Your task to perform on an android device: clear history in the chrome app Image 0: 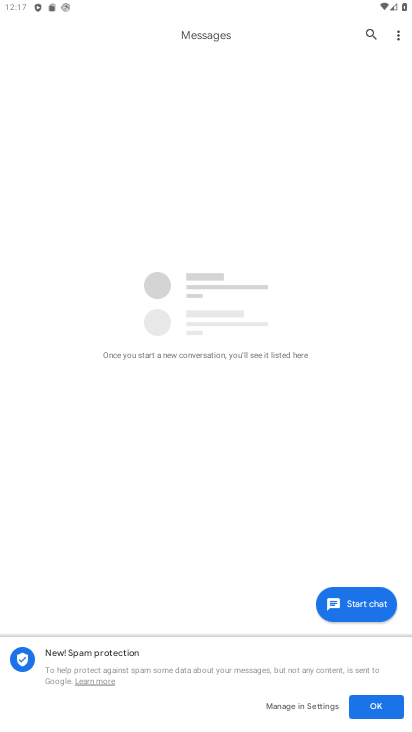
Step 0: press home button
Your task to perform on an android device: clear history in the chrome app Image 1: 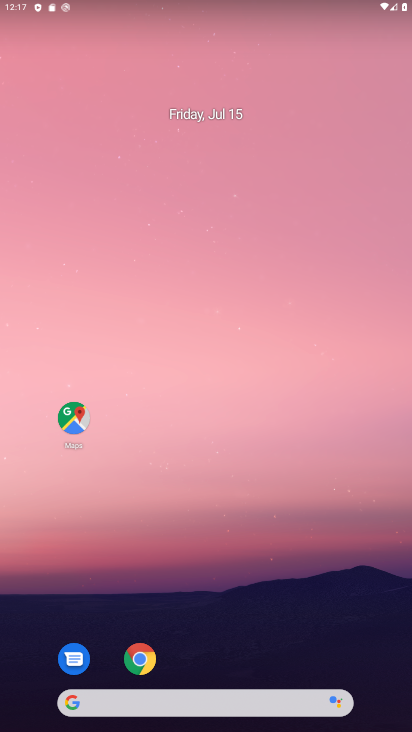
Step 1: click (139, 657)
Your task to perform on an android device: clear history in the chrome app Image 2: 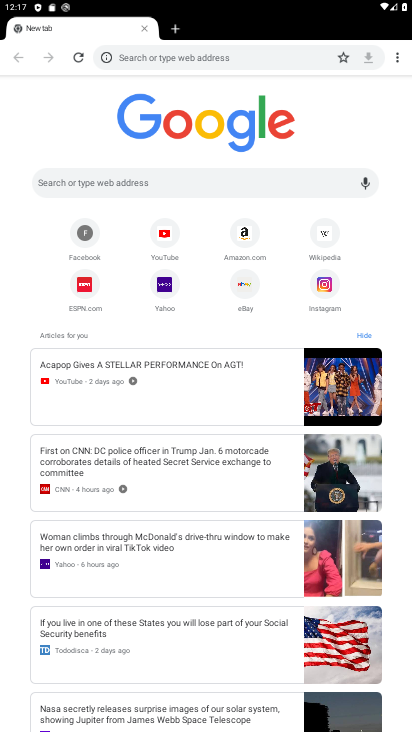
Step 2: click (393, 54)
Your task to perform on an android device: clear history in the chrome app Image 3: 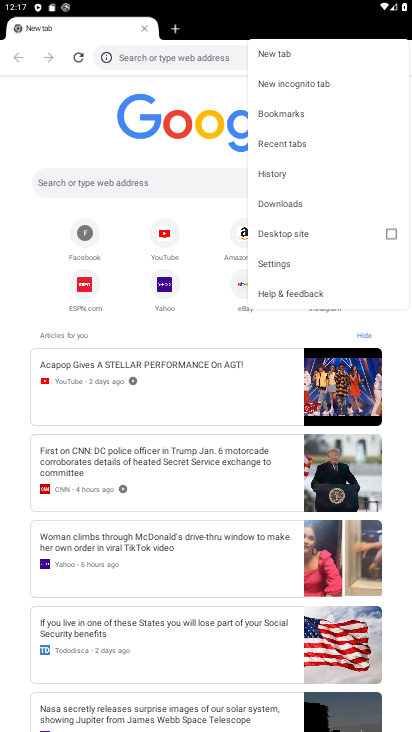
Step 3: click (298, 265)
Your task to perform on an android device: clear history in the chrome app Image 4: 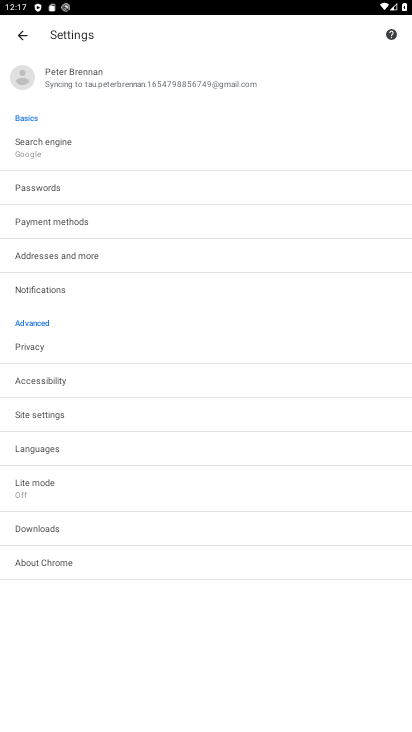
Step 4: click (69, 419)
Your task to perform on an android device: clear history in the chrome app Image 5: 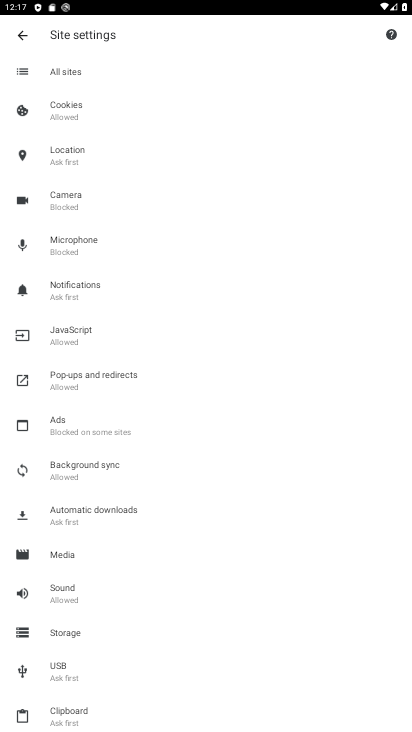
Step 5: press back button
Your task to perform on an android device: clear history in the chrome app Image 6: 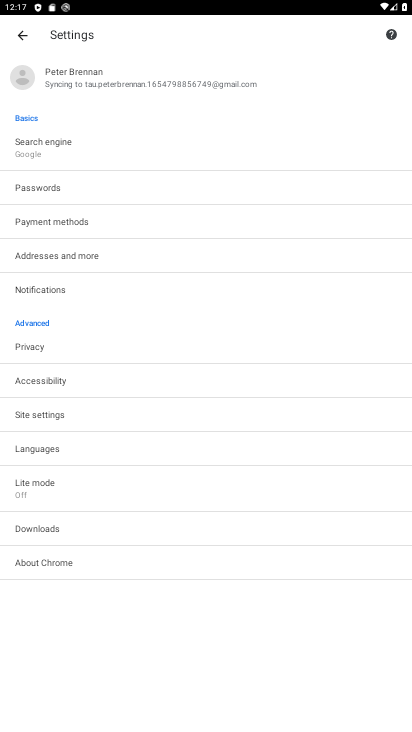
Step 6: click (78, 345)
Your task to perform on an android device: clear history in the chrome app Image 7: 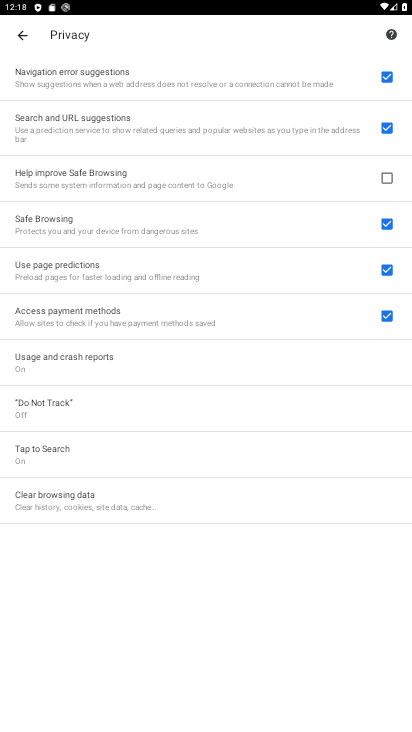
Step 7: click (95, 498)
Your task to perform on an android device: clear history in the chrome app Image 8: 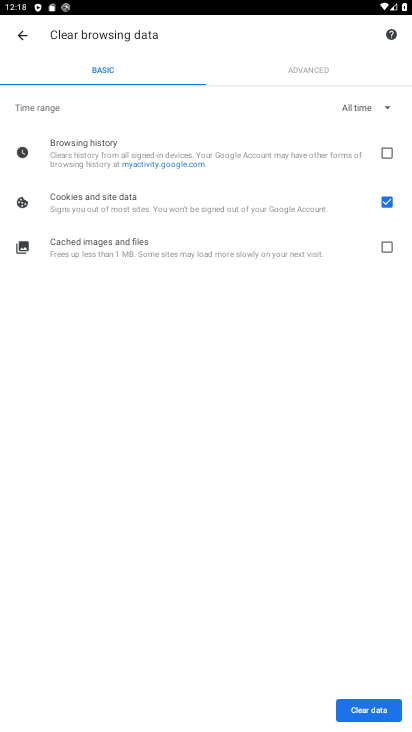
Step 8: task complete